Your task to perform on an android device: star an email in the gmail app Image 0: 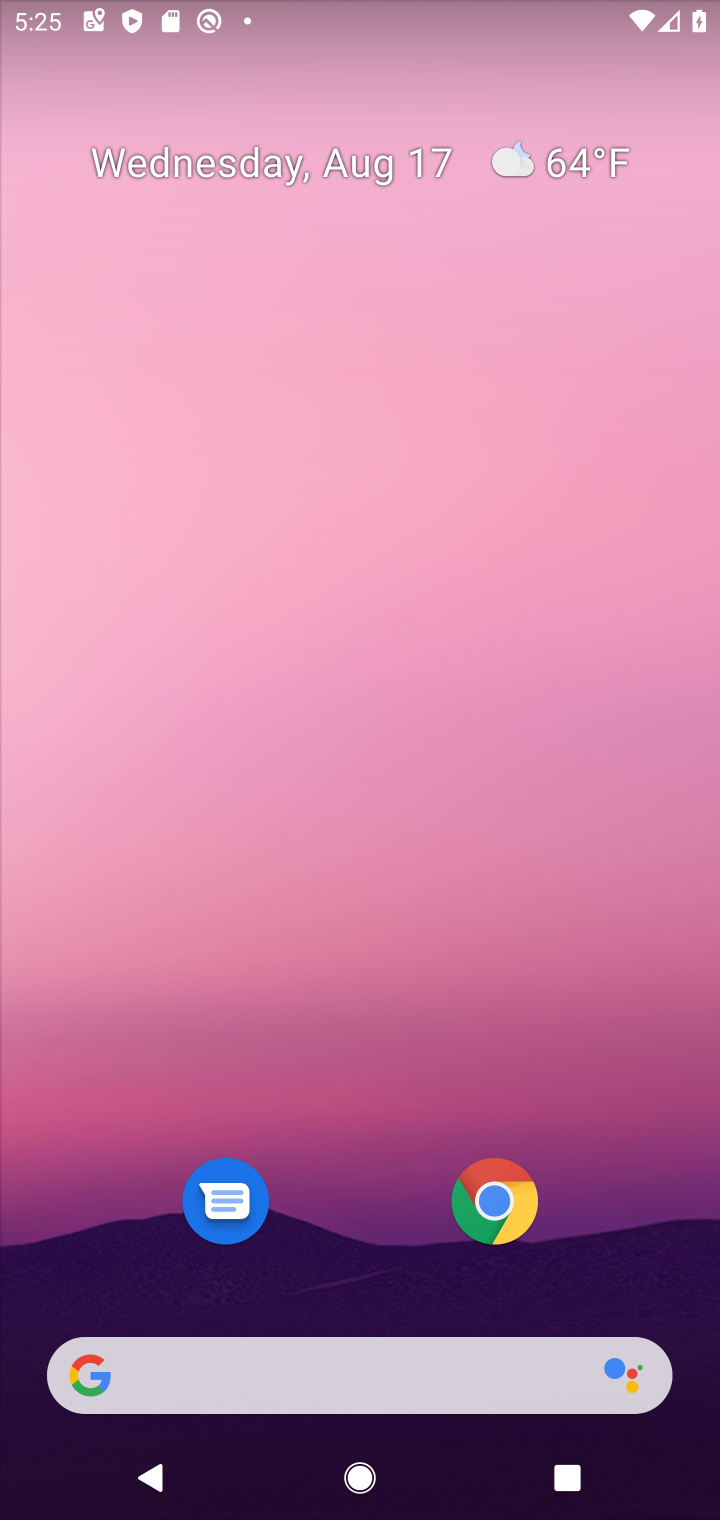
Step 0: drag from (338, 1308) to (331, 84)
Your task to perform on an android device: star an email in the gmail app Image 1: 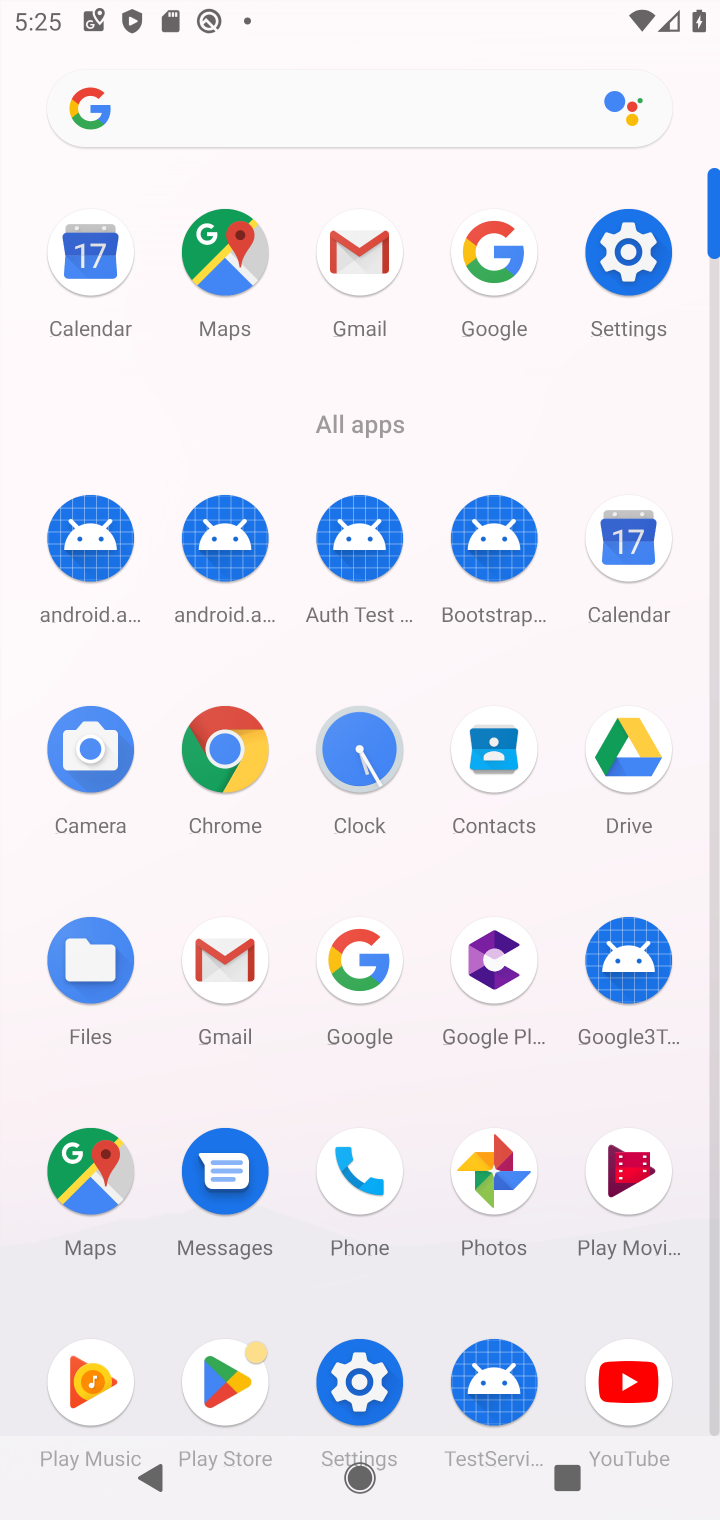
Step 1: click (359, 260)
Your task to perform on an android device: star an email in the gmail app Image 2: 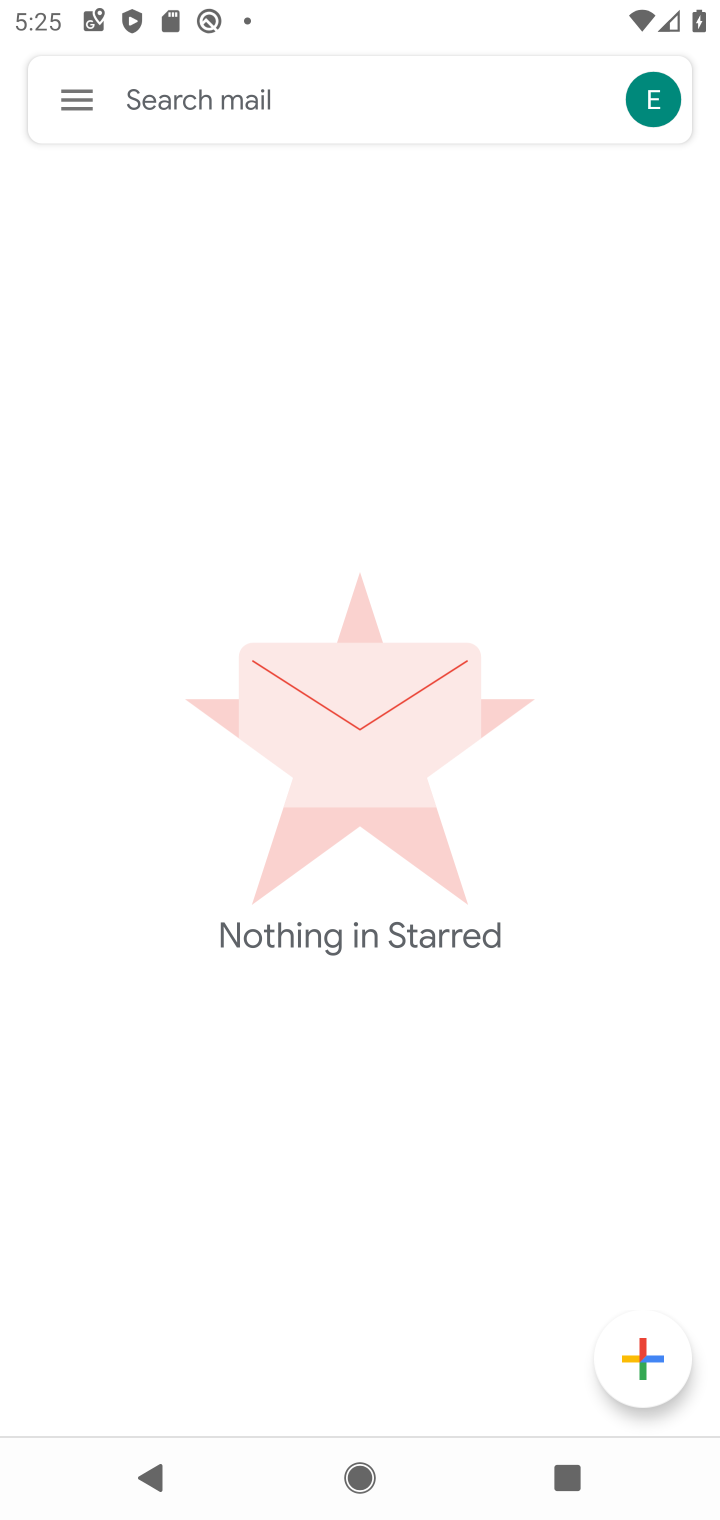
Step 2: click (75, 112)
Your task to perform on an android device: star an email in the gmail app Image 3: 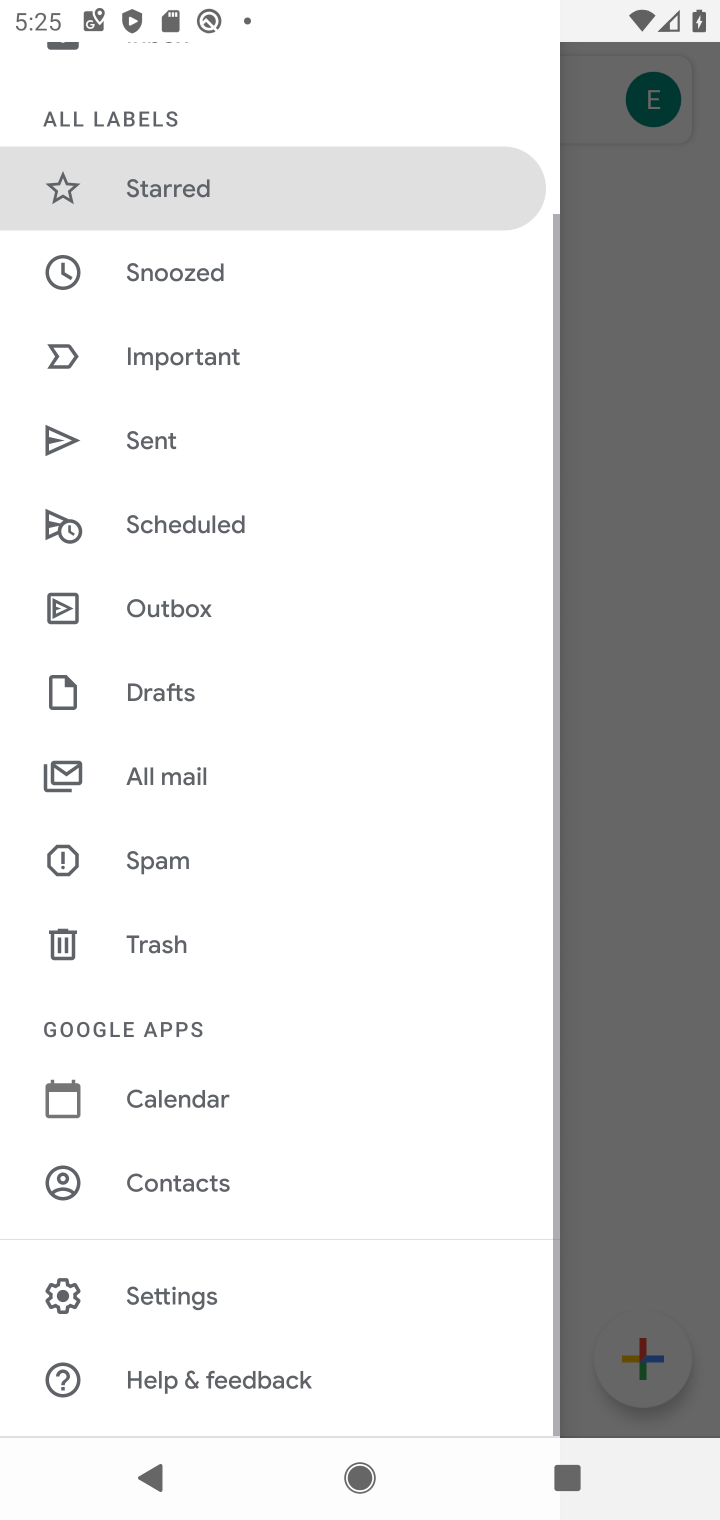
Step 3: click (176, 773)
Your task to perform on an android device: star an email in the gmail app Image 4: 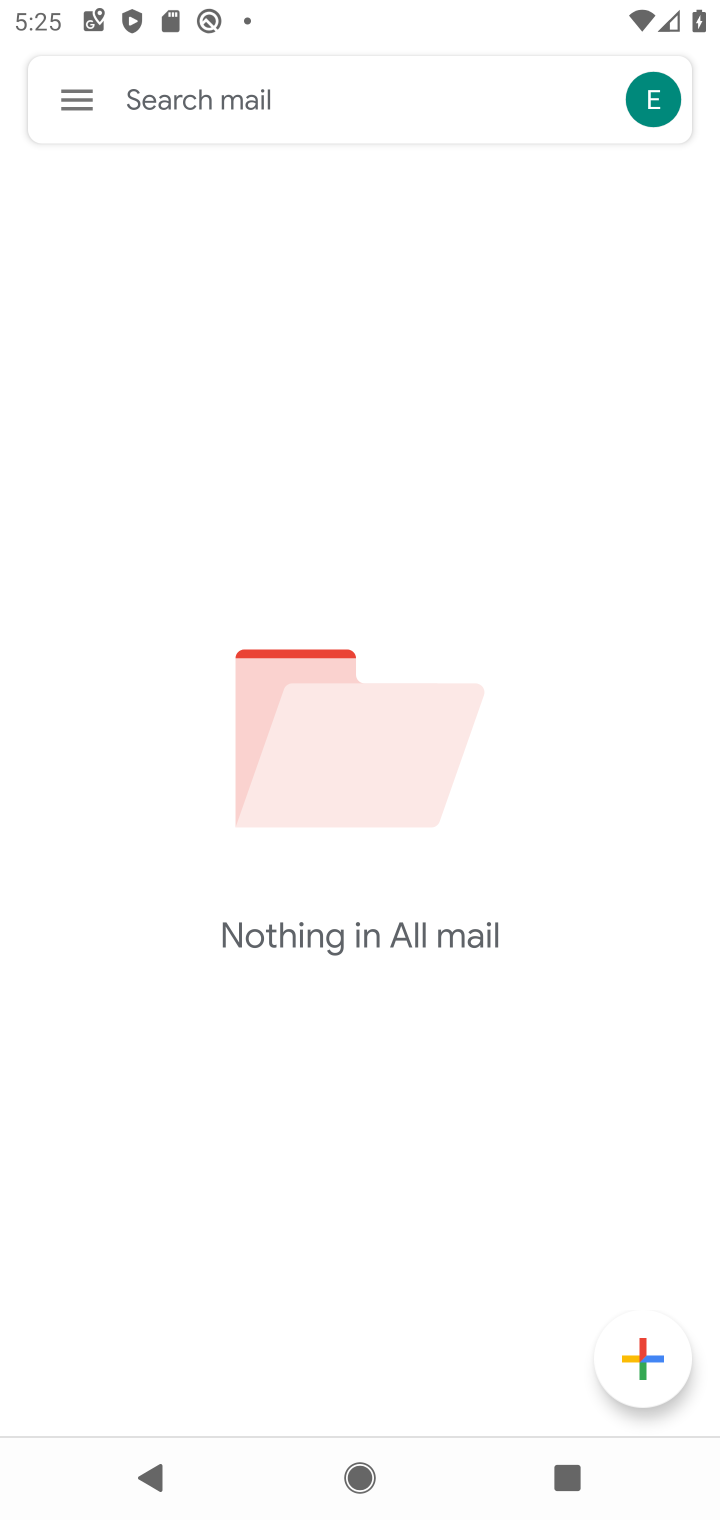
Step 4: task complete